Your task to perform on an android device: search for starred emails in the gmail app Image 0: 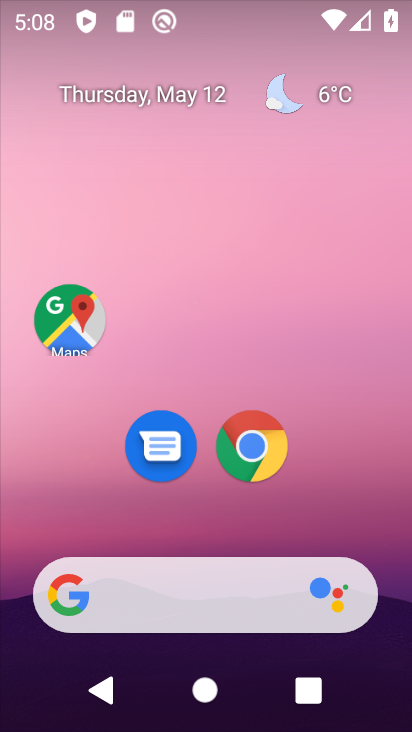
Step 0: drag from (330, 484) to (336, 186)
Your task to perform on an android device: search for starred emails in the gmail app Image 1: 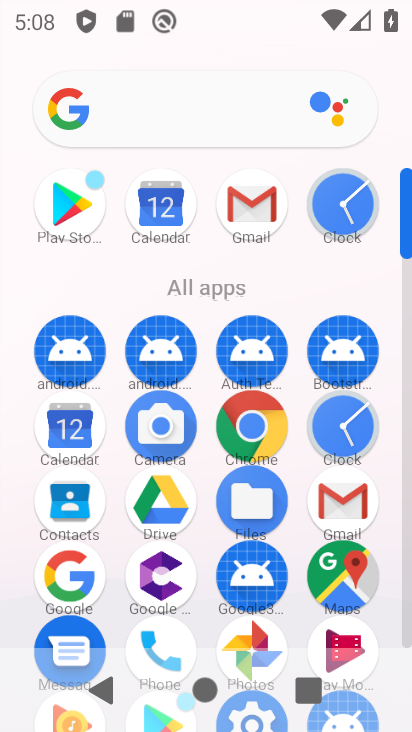
Step 1: click (241, 217)
Your task to perform on an android device: search for starred emails in the gmail app Image 2: 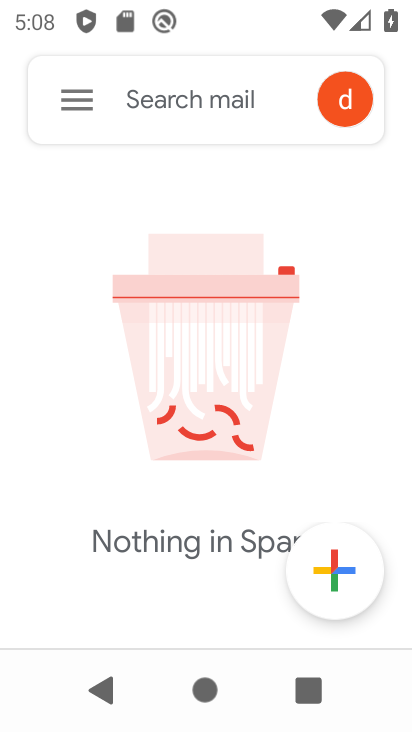
Step 2: click (74, 107)
Your task to perform on an android device: search for starred emails in the gmail app Image 3: 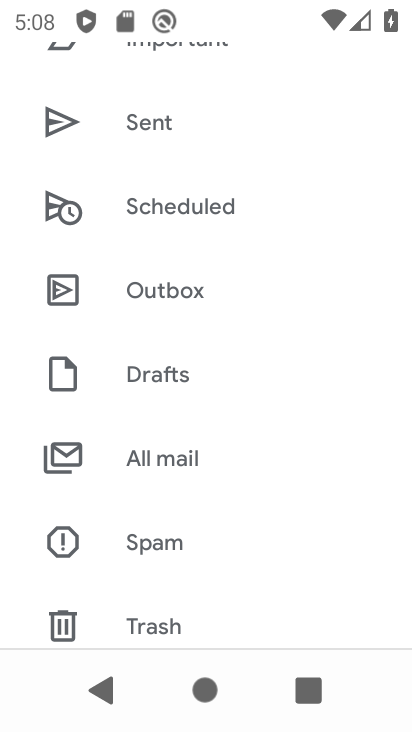
Step 3: drag from (259, 126) to (280, 445)
Your task to perform on an android device: search for starred emails in the gmail app Image 4: 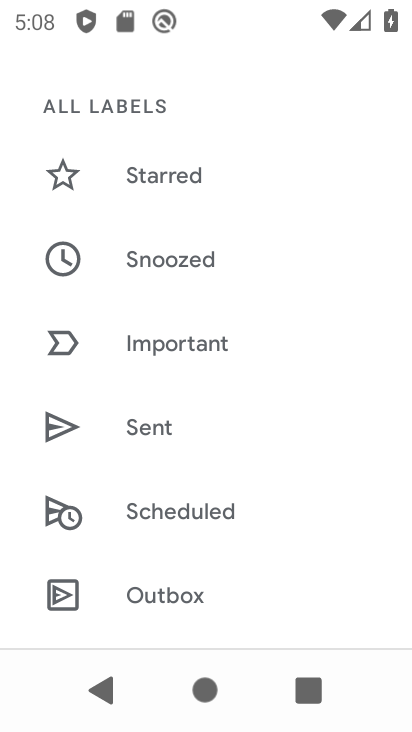
Step 4: click (160, 172)
Your task to perform on an android device: search for starred emails in the gmail app Image 5: 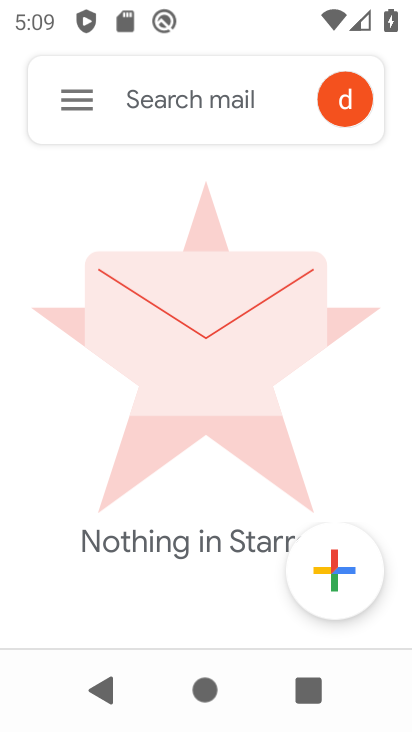
Step 5: task complete